Your task to perform on an android device: Open internet settings Image 0: 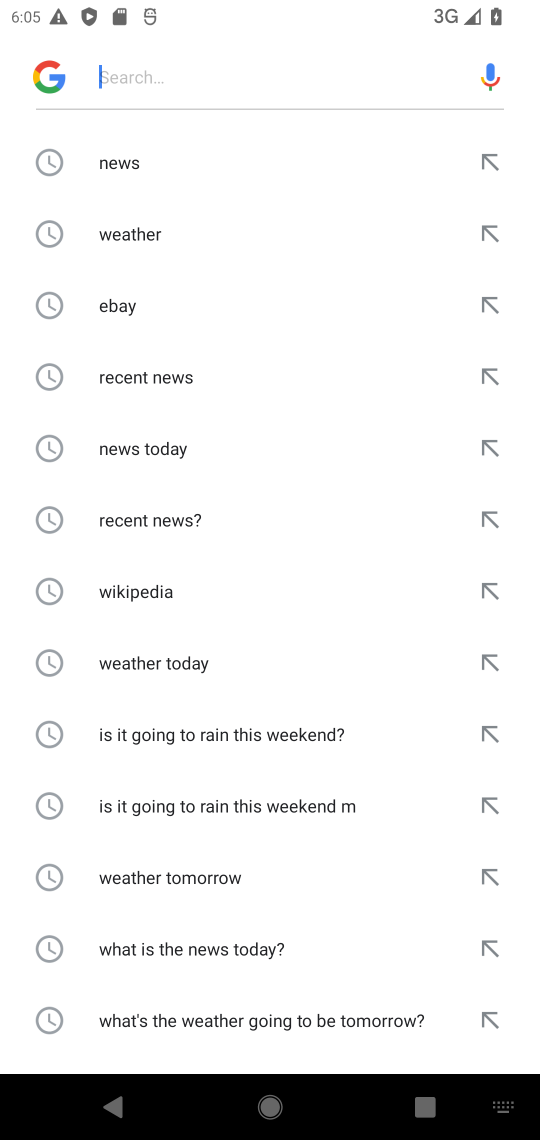
Step 0: press home button
Your task to perform on an android device: Open internet settings Image 1: 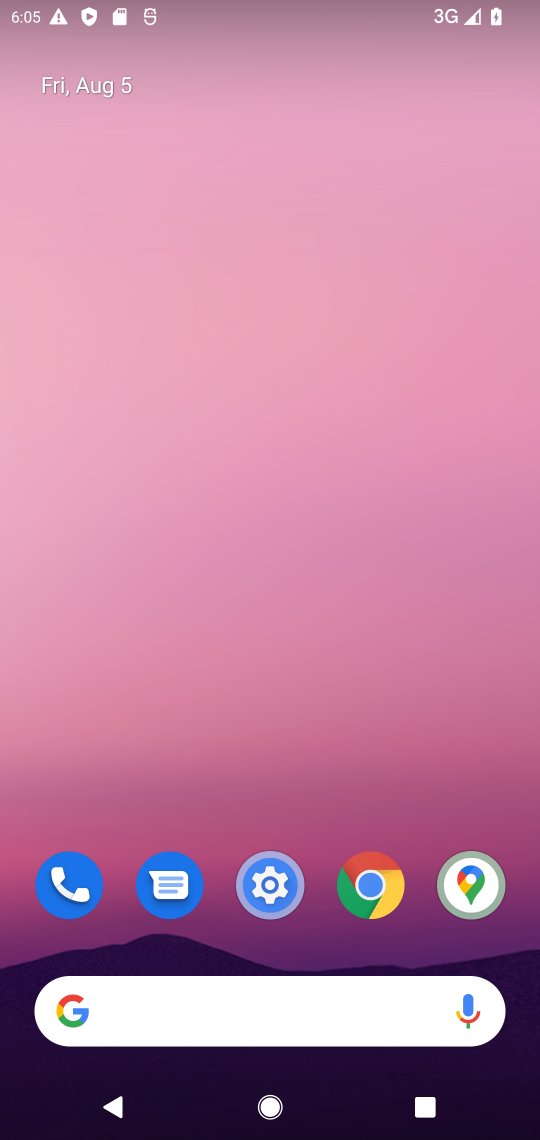
Step 1: click (271, 895)
Your task to perform on an android device: Open internet settings Image 2: 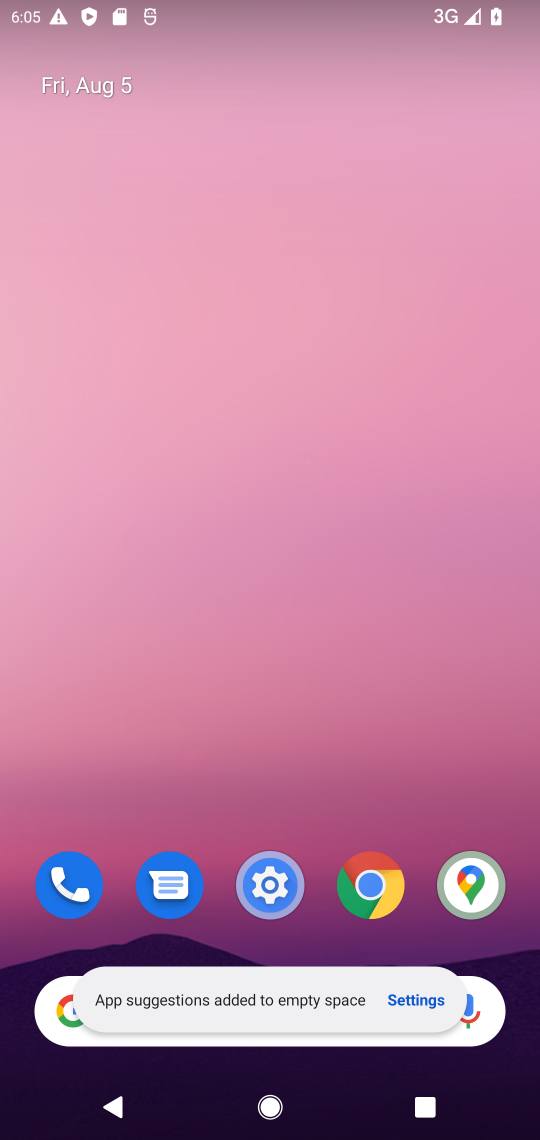
Step 2: click (274, 893)
Your task to perform on an android device: Open internet settings Image 3: 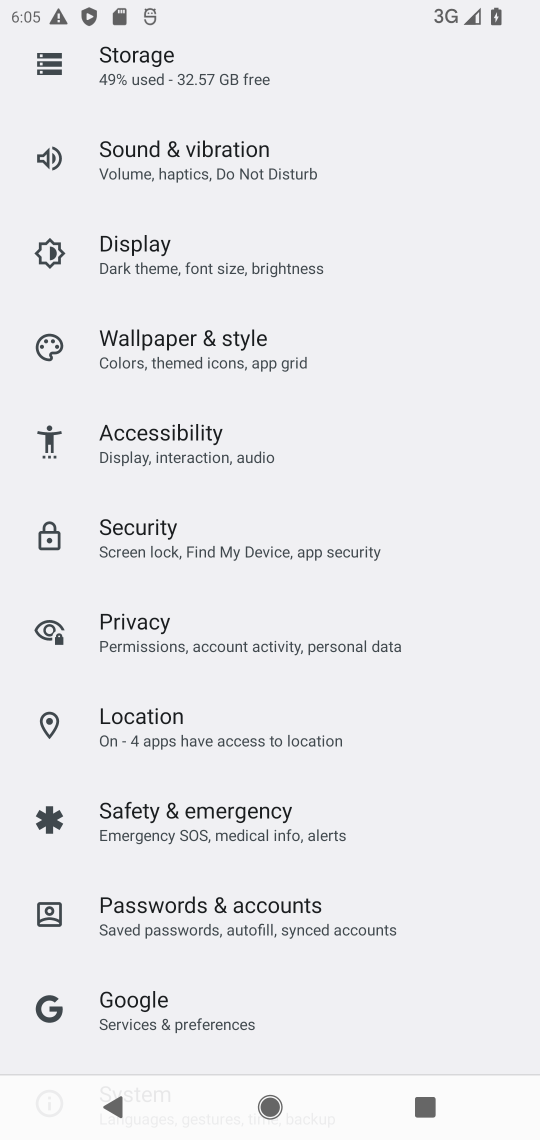
Step 3: drag from (242, 137) to (229, 914)
Your task to perform on an android device: Open internet settings Image 4: 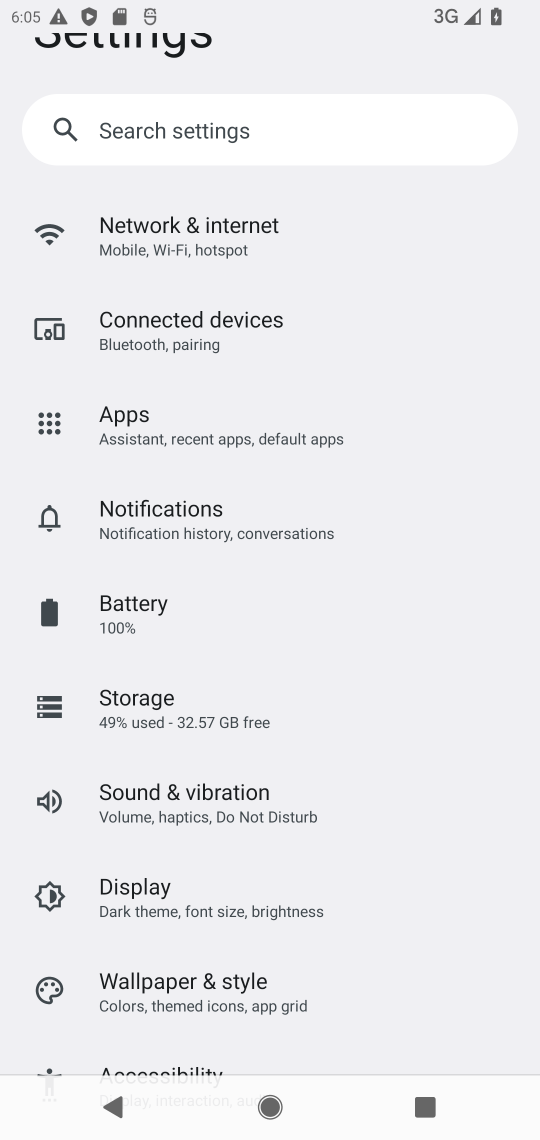
Step 4: click (200, 237)
Your task to perform on an android device: Open internet settings Image 5: 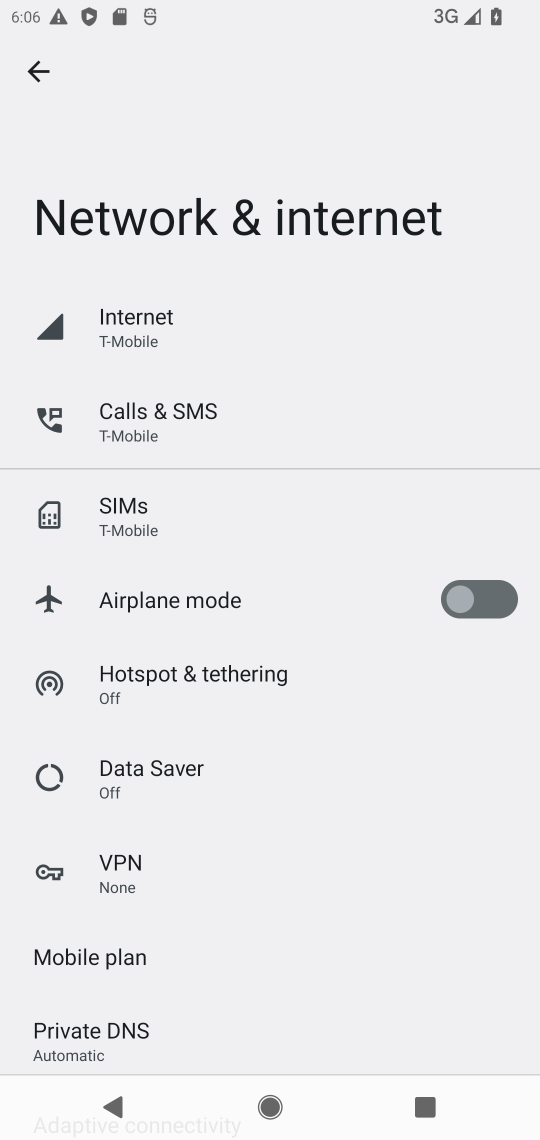
Step 5: click (161, 331)
Your task to perform on an android device: Open internet settings Image 6: 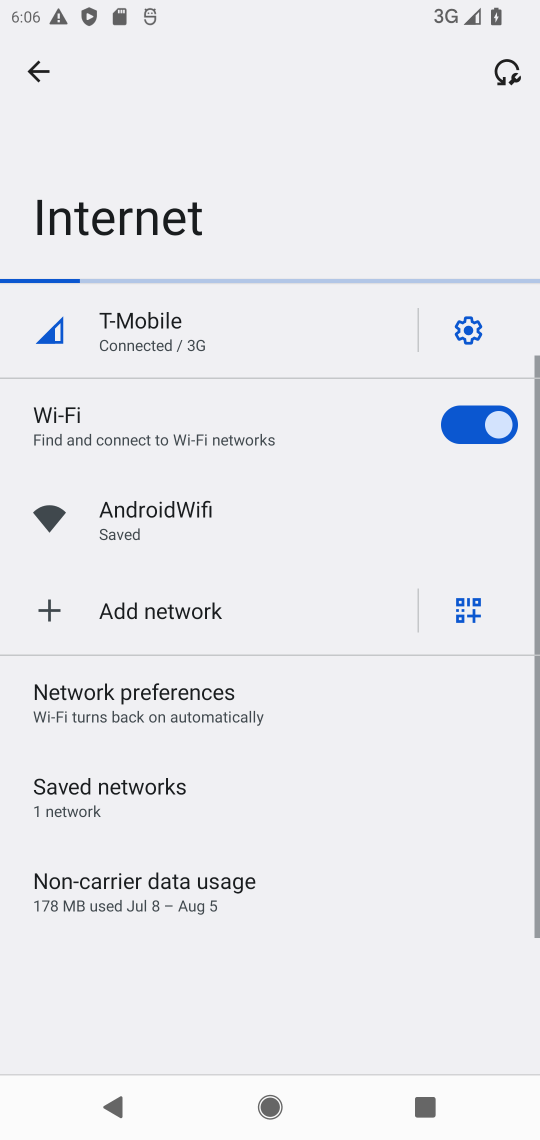
Step 6: task complete